Your task to perform on an android device: change notification settings in the gmail app Image 0: 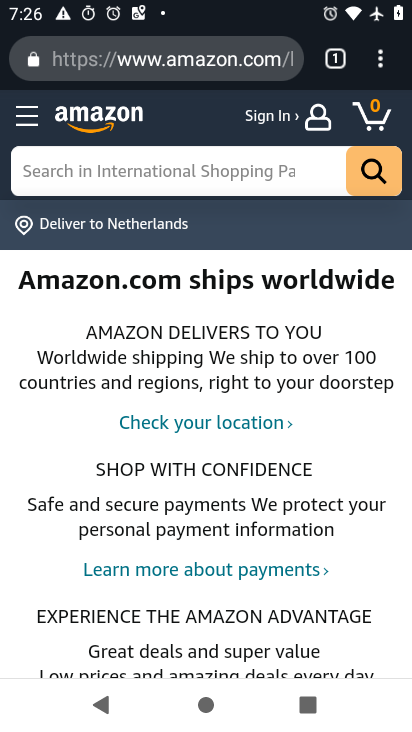
Step 0: press home button
Your task to perform on an android device: change notification settings in the gmail app Image 1: 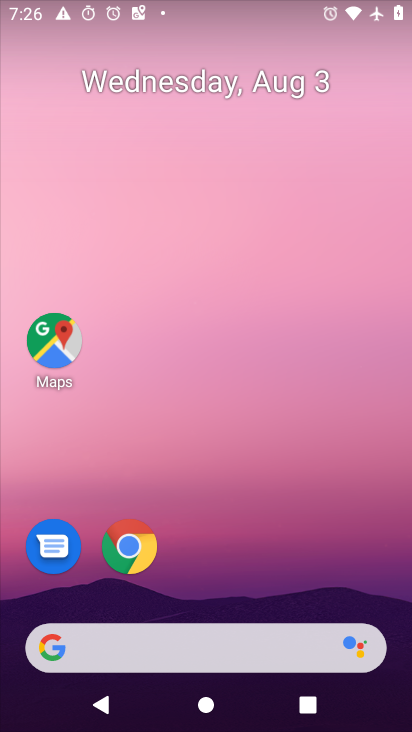
Step 1: drag from (278, 364) to (317, 161)
Your task to perform on an android device: change notification settings in the gmail app Image 2: 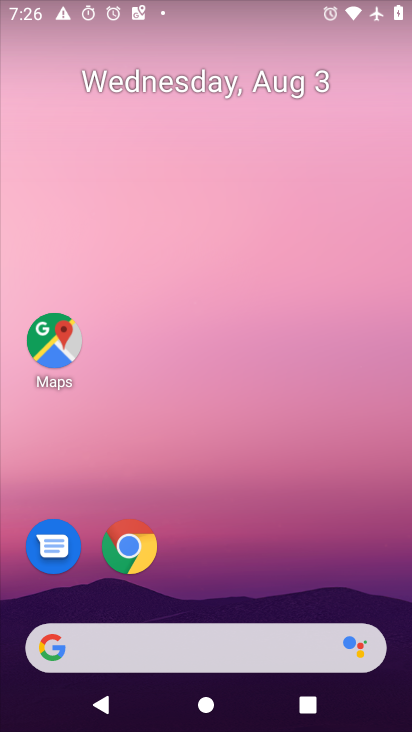
Step 2: drag from (202, 608) to (283, 119)
Your task to perform on an android device: change notification settings in the gmail app Image 3: 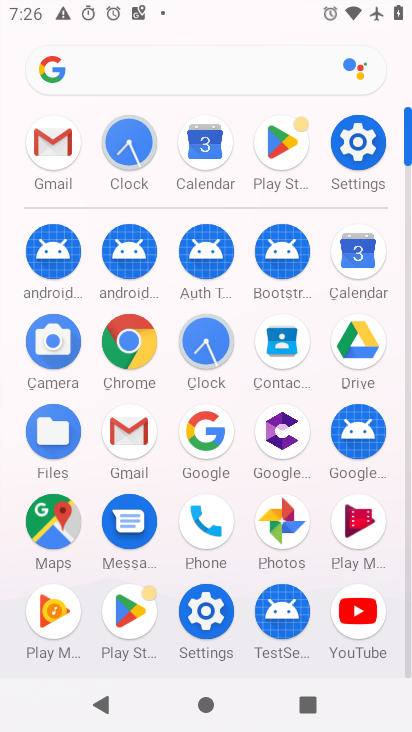
Step 3: click (53, 140)
Your task to perform on an android device: change notification settings in the gmail app Image 4: 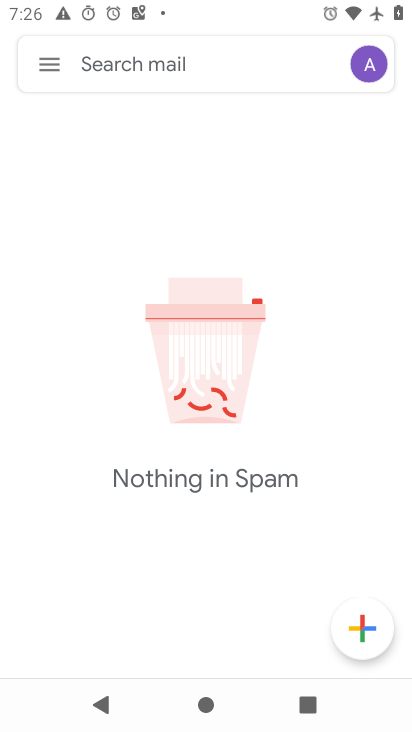
Step 4: click (51, 67)
Your task to perform on an android device: change notification settings in the gmail app Image 5: 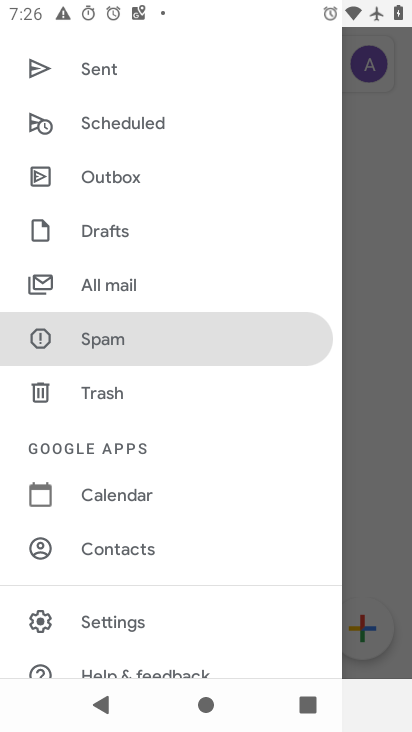
Step 5: click (119, 622)
Your task to perform on an android device: change notification settings in the gmail app Image 6: 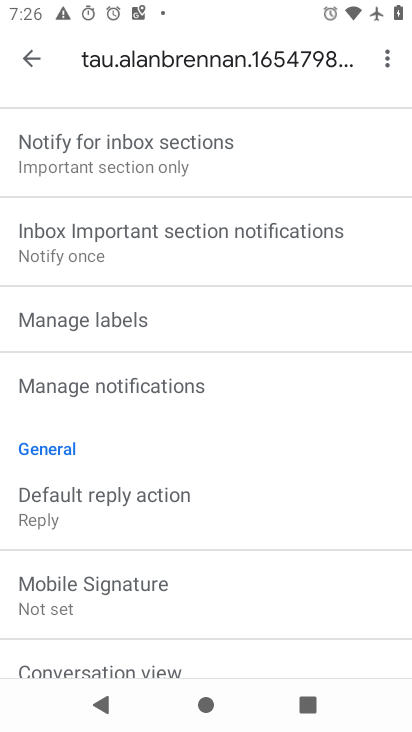
Step 6: drag from (317, 144) to (276, 725)
Your task to perform on an android device: change notification settings in the gmail app Image 7: 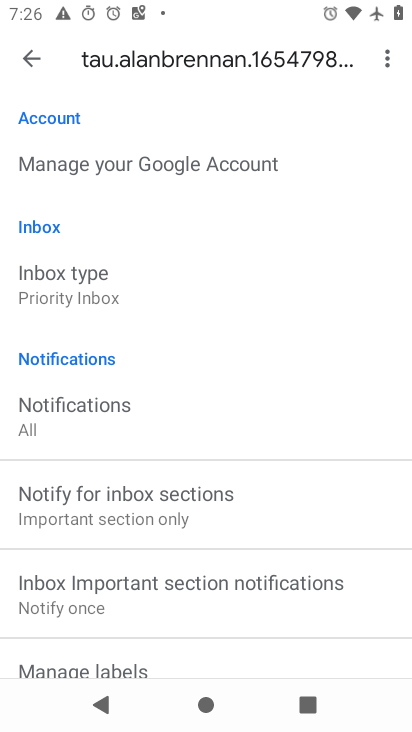
Step 7: drag from (181, 614) to (200, 259)
Your task to perform on an android device: change notification settings in the gmail app Image 8: 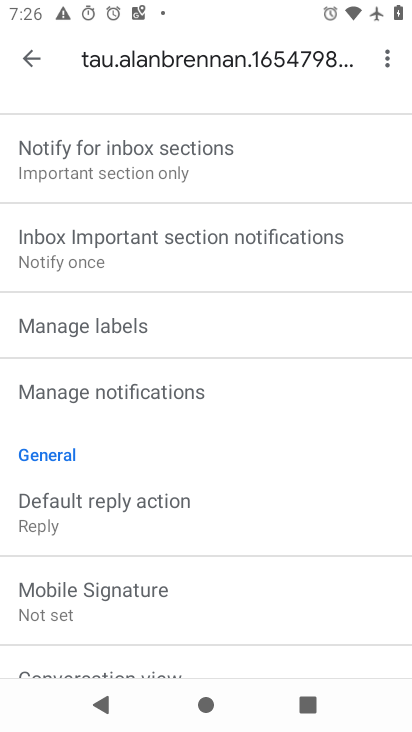
Step 8: click (111, 396)
Your task to perform on an android device: change notification settings in the gmail app Image 9: 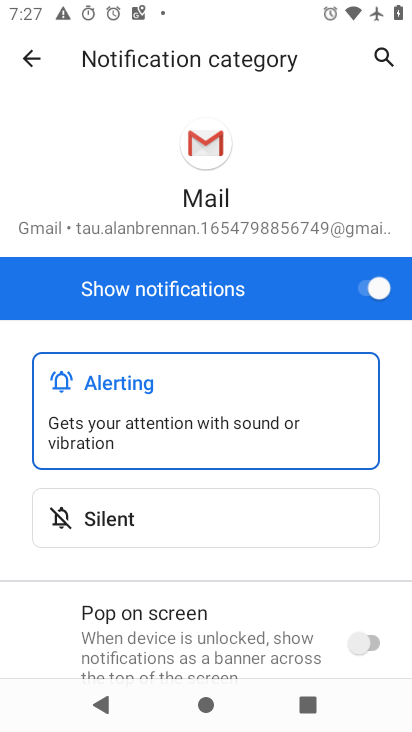
Step 9: click (374, 285)
Your task to perform on an android device: change notification settings in the gmail app Image 10: 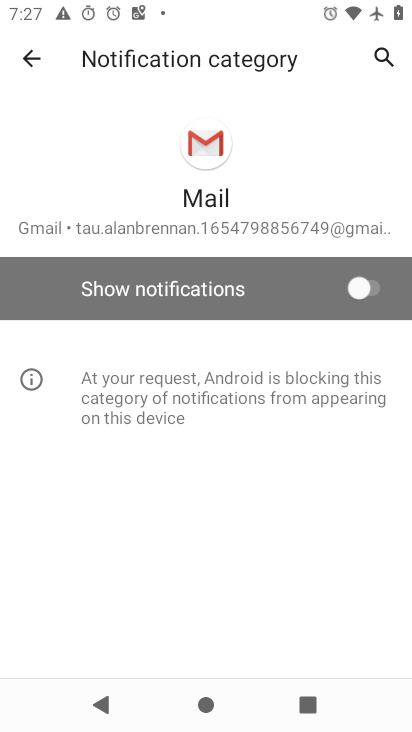
Step 10: task complete